Your task to perform on an android device: turn off location Image 0: 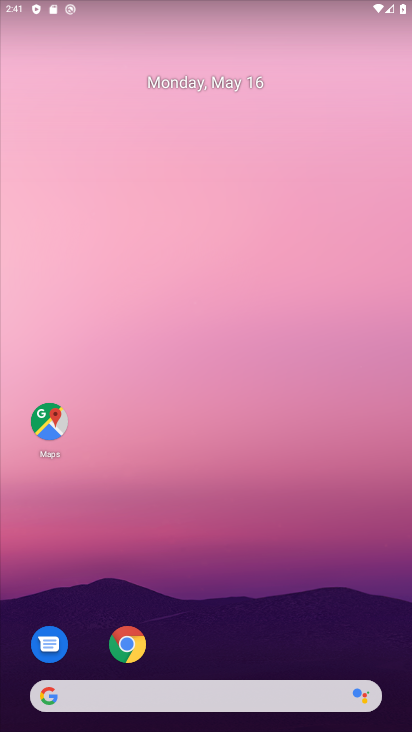
Step 0: drag from (217, 677) to (279, 98)
Your task to perform on an android device: turn off location Image 1: 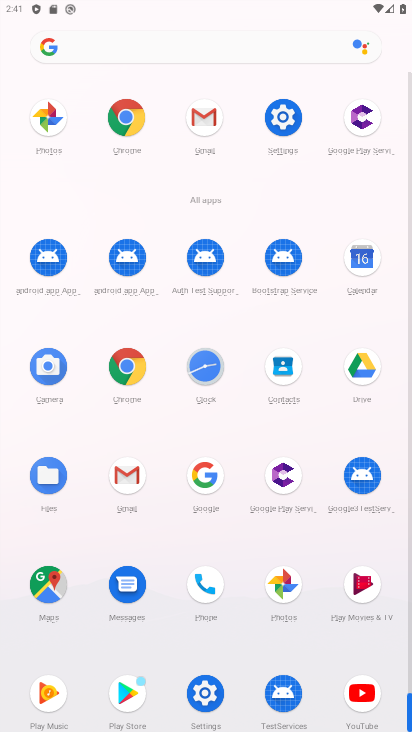
Step 1: drag from (162, 594) to (202, 347)
Your task to perform on an android device: turn off location Image 2: 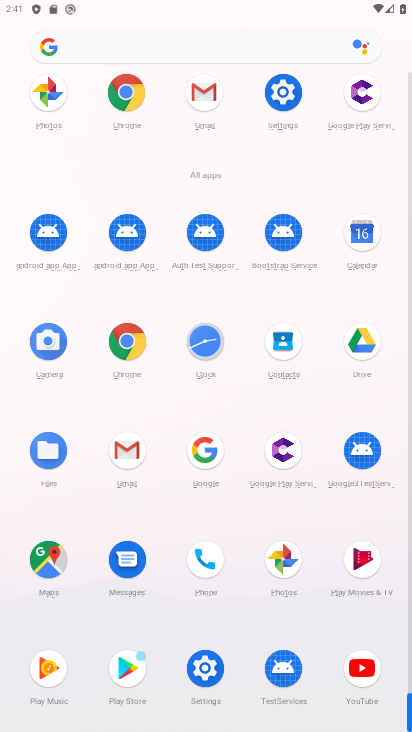
Step 2: click (210, 675)
Your task to perform on an android device: turn off location Image 3: 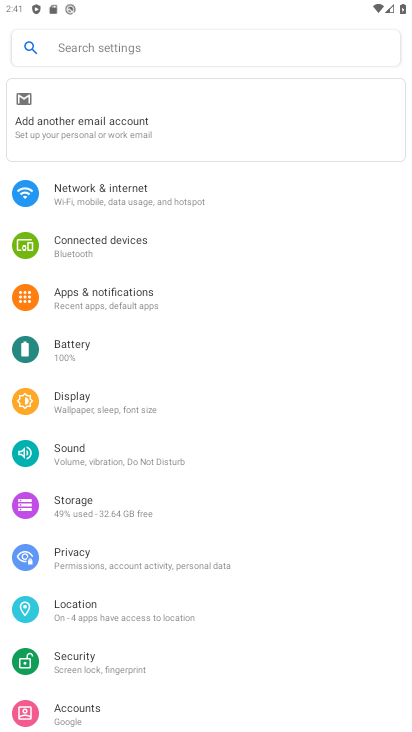
Step 3: click (136, 618)
Your task to perform on an android device: turn off location Image 4: 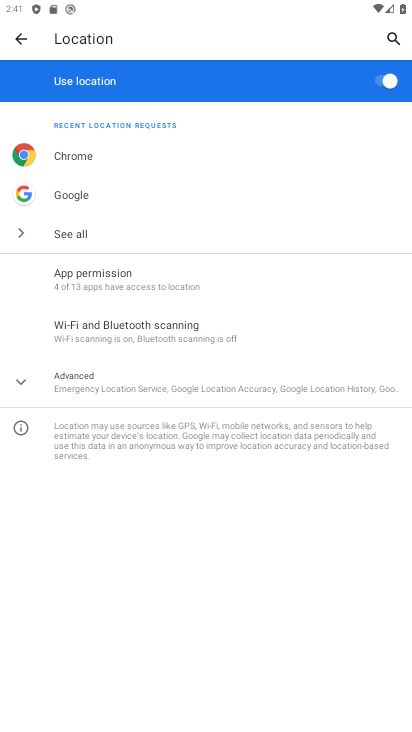
Step 4: click (386, 79)
Your task to perform on an android device: turn off location Image 5: 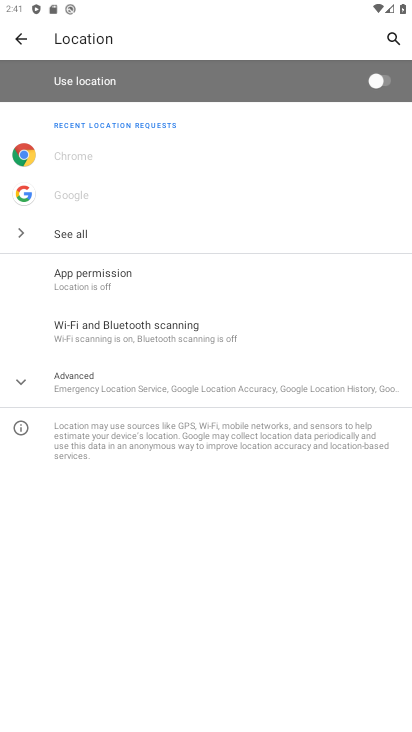
Step 5: task complete